Your task to perform on an android device: turn vacation reply on in the gmail app Image 0: 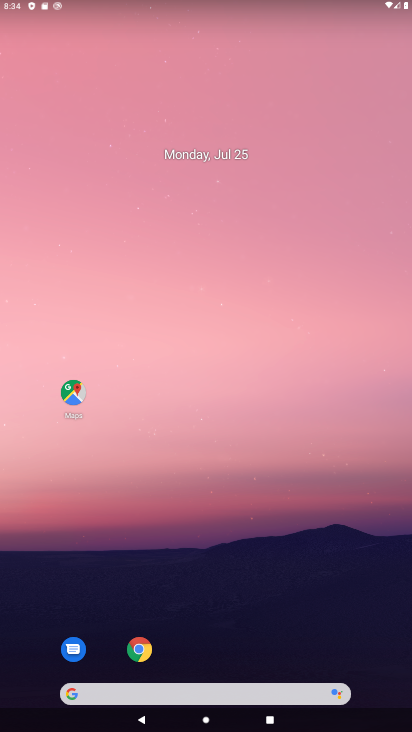
Step 0: drag from (204, 624) to (181, 102)
Your task to perform on an android device: turn vacation reply on in the gmail app Image 1: 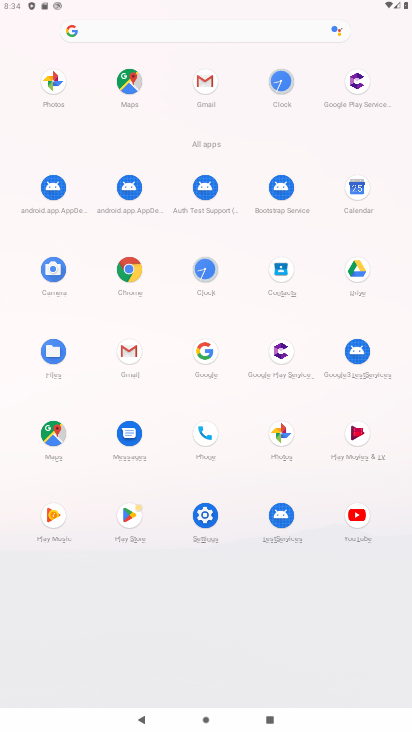
Step 1: click (201, 99)
Your task to perform on an android device: turn vacation reply on in the gmail app Image 2: 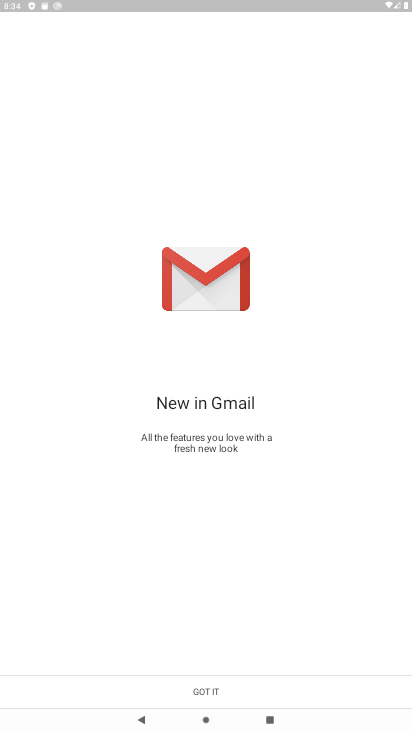
Step 2: click (196, 686)
Your task to perform on an android device: turn vacation reply on in the gmail app Image 3: 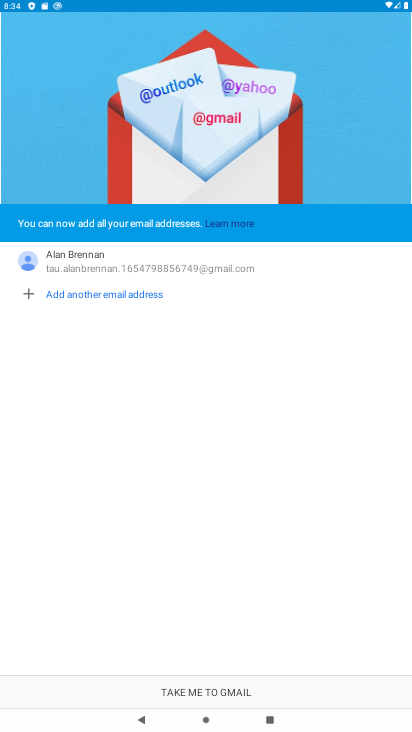
Step 3: click (174, 683)
Your task to perform on an android device: turn vacation reply on in the gmail app Image 4: 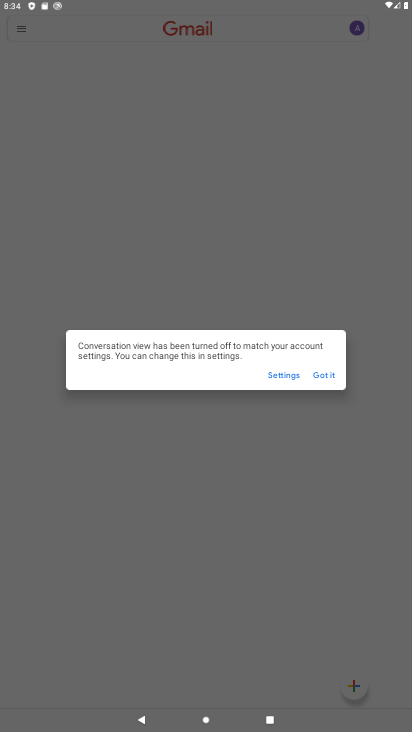
Step 4: click (318, 377)
Your task to perform on an android device: turn vacation reply on in the gmail app Image 5: 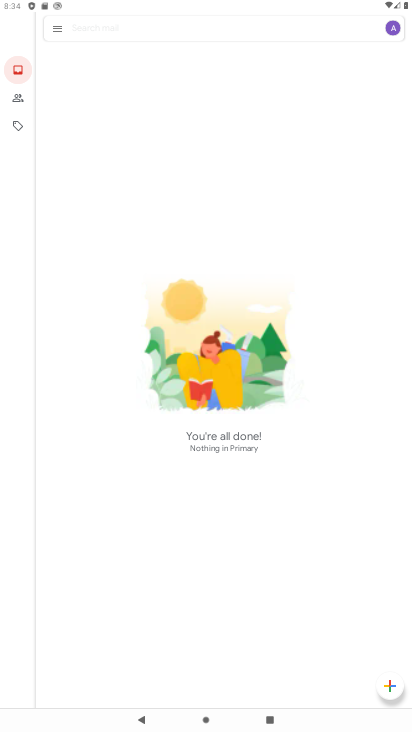
Step 5: click (49, 25)
Your task to perform on an android device: turn vacation reply on in the gmail app Image 6: 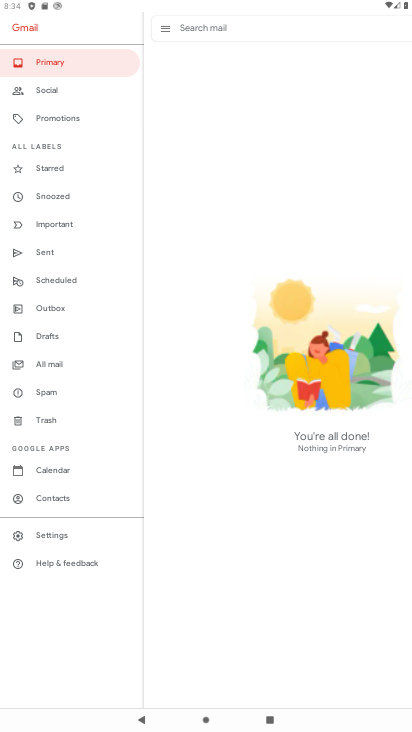
Step 6: click (61, 541)
Your task to perform on an android device: turn vacation reply on in the gmail app Image 7: 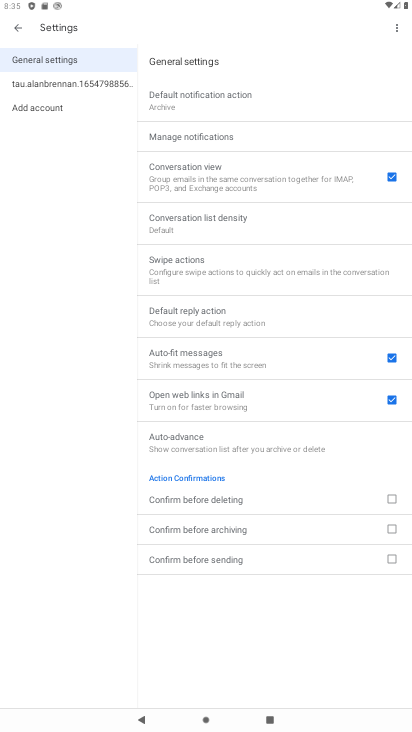
Step 7: click (75, 90)
Your task to perform on an android device: turn vacation reply on in the gmail app Image 8: 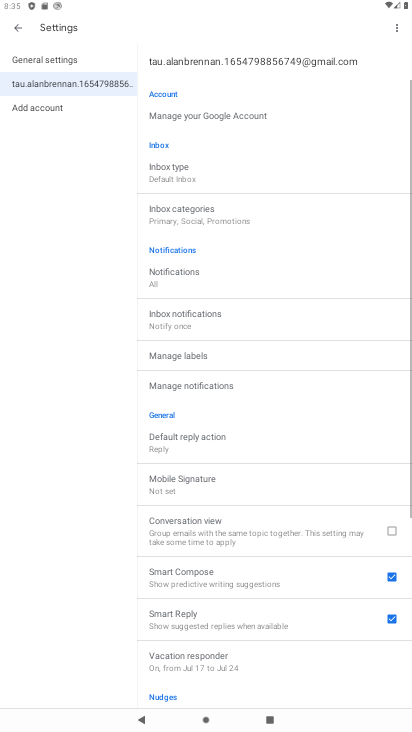
Step 8: drag from (199, 603) to (230, 389)
Your task to perform on an android device: turn vacation reply on in the gmail app Image 9: 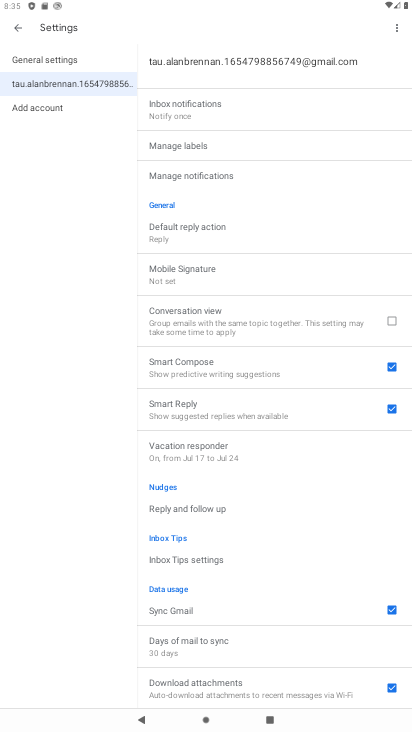
Step 9: click (199, 450)
Your task to perform on an android device: turn vacation reply on in the gmail app Image 10: 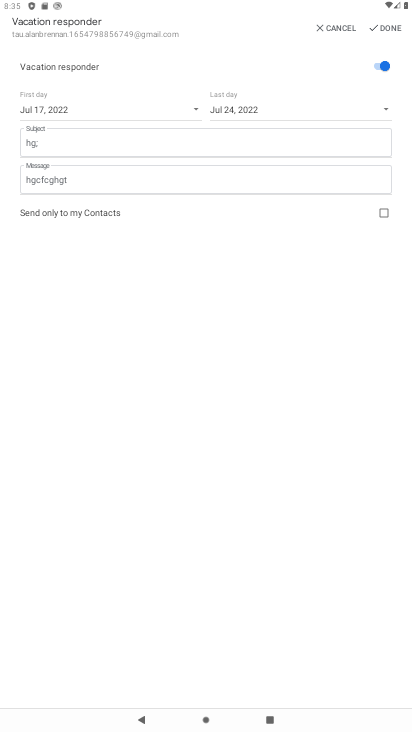
Step 10: task complete